Your task to perform on an android device: change alarm snooze length Image 0: 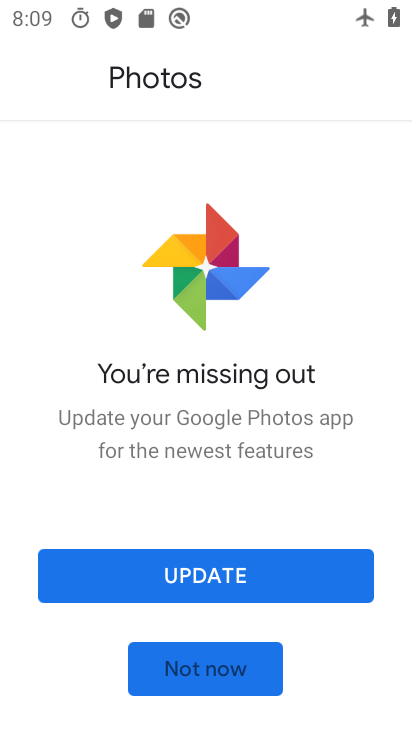
Step 0: press home button
Your task to perform on an android device: change alarm snooze length Image 1: 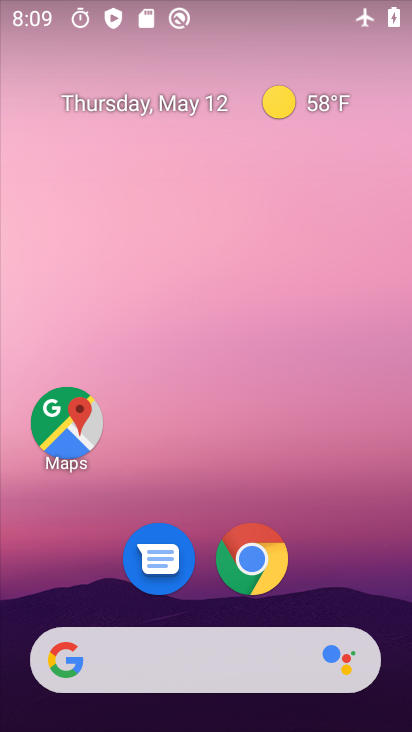
Step 1: drag from (317, 557) to (247, 140)
Your task to perform on an android device: change alarm snooze length Image 2: 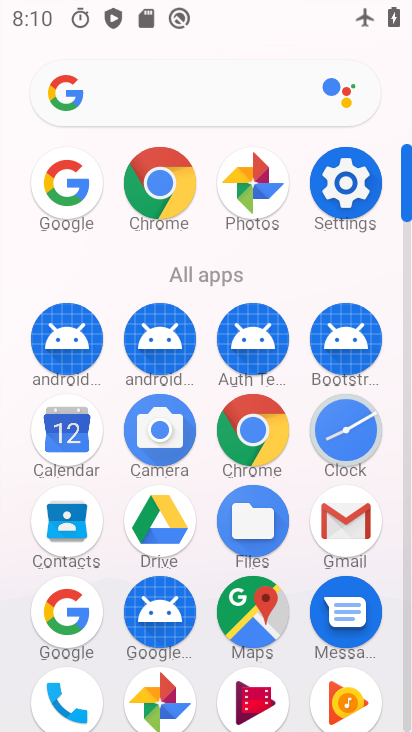
Step 2: click (341, 432)
Your task to perform on an android device: change alarm snooze length Image 3: 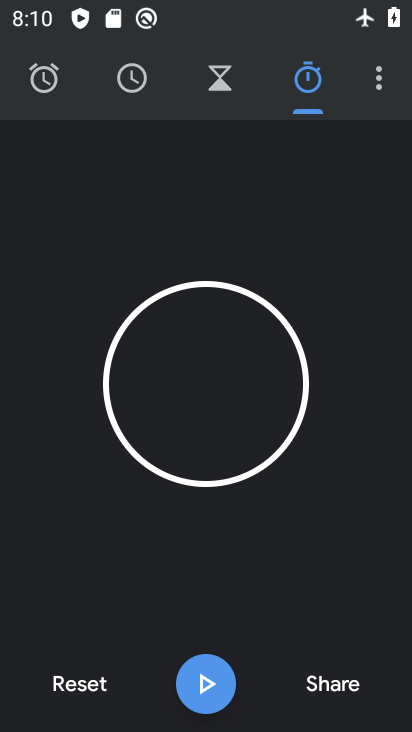
Step 3: click (382, 80)
Your task to perform on an android device: change alarm snooze length Image 4: 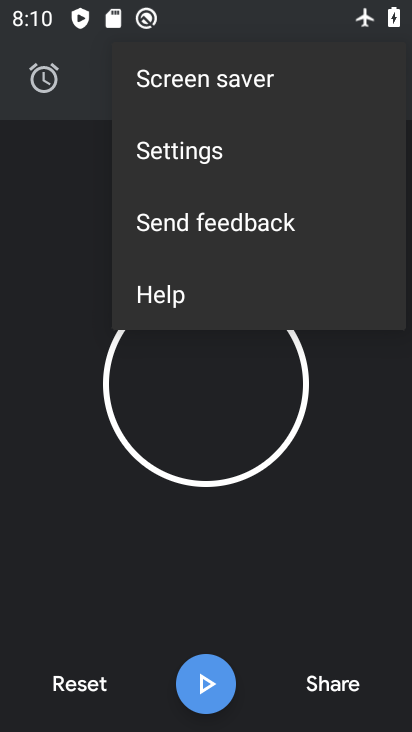
Step 4: click (196, 148)
Your task to perform on an android device: change alarm snooze length Image 5: 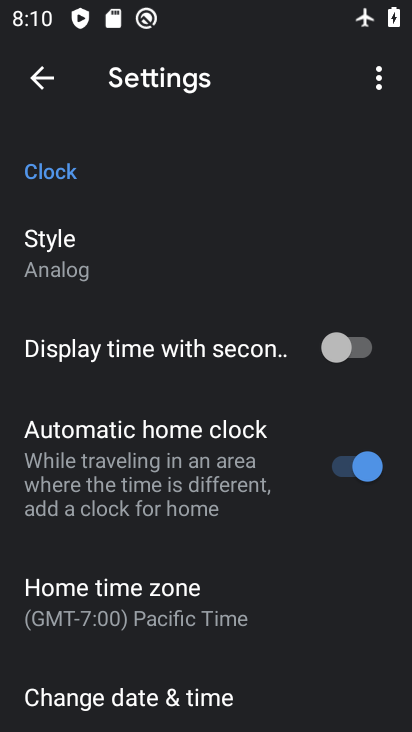
Step 5: drag from (165, 543) to (267, 356)
Your task to perform on an android device: change alarm snooze length Image 6: 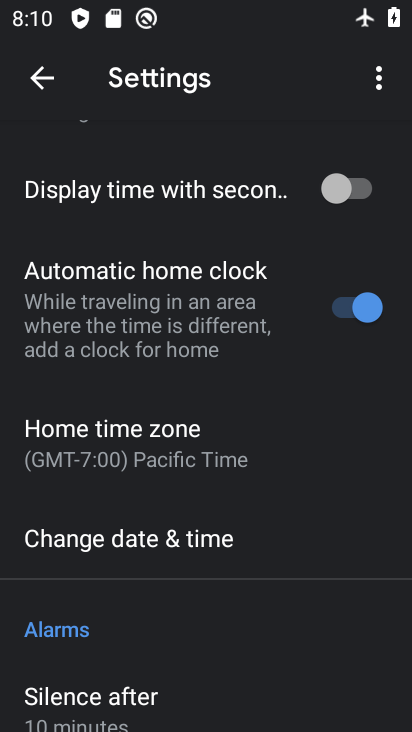
Step 6: drag from (167, 610) to (233, 484)
Your task to perform on an android device: change alarm snooze length Image 7: 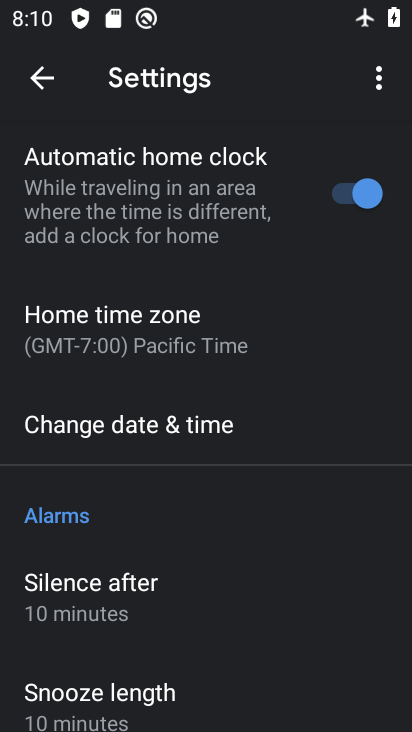
Step 7: drag from (154, 630) to (257, 488)
Your task to perform on an android device: change alarm snooze length Image 8: 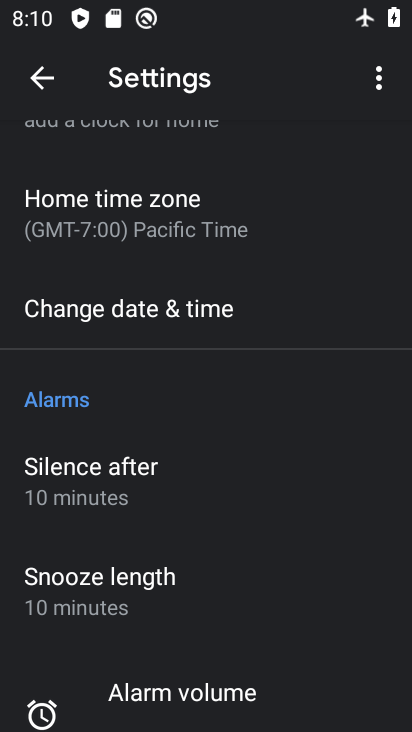
Step 8: click (135, 570)
Your task to perform on an android device: change alarm snooze length Image 9: 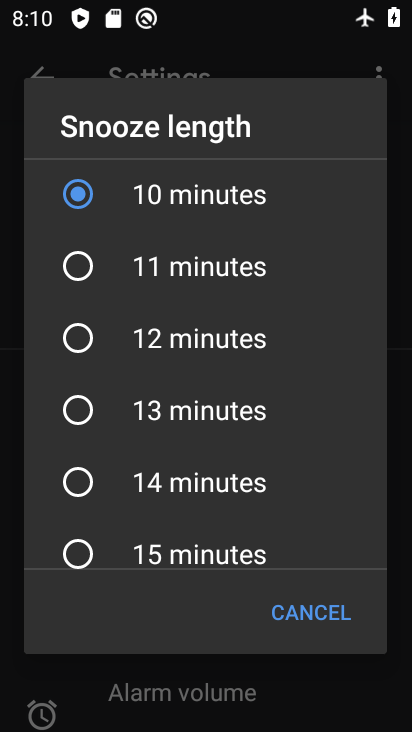
Step 9: click (76, 405)
Your task to perform on an android device: change alarm snooze length Image 10: 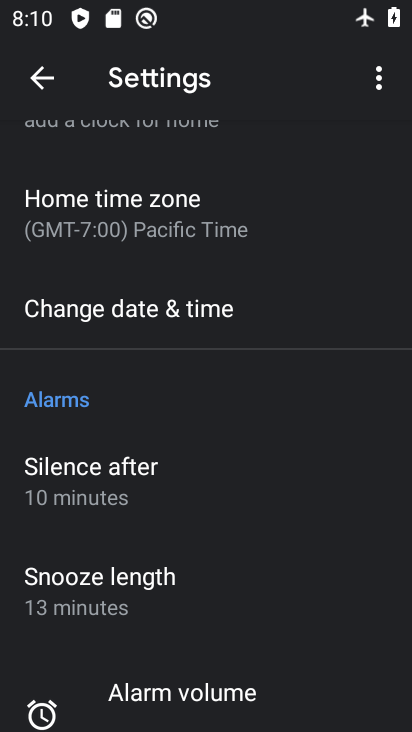
Step 10: task complete